Your task to perform on an android device: turn on the 24-hour format for clock Image 0: 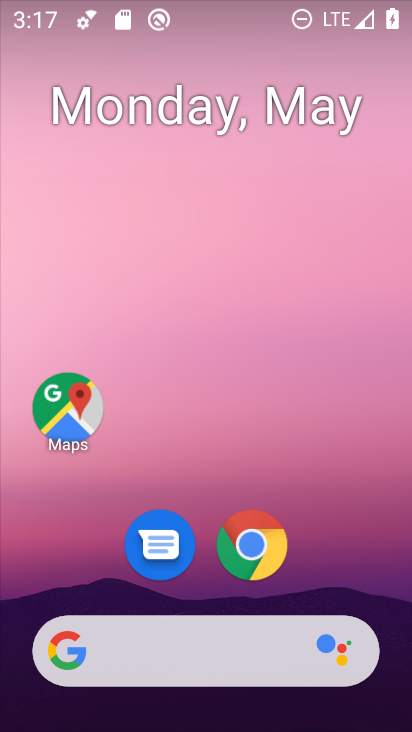
Step 0: drag from (361, 584) to (330, 174)
Your task to perform on an android device: turn on the 24-hour format for clock Image 1: 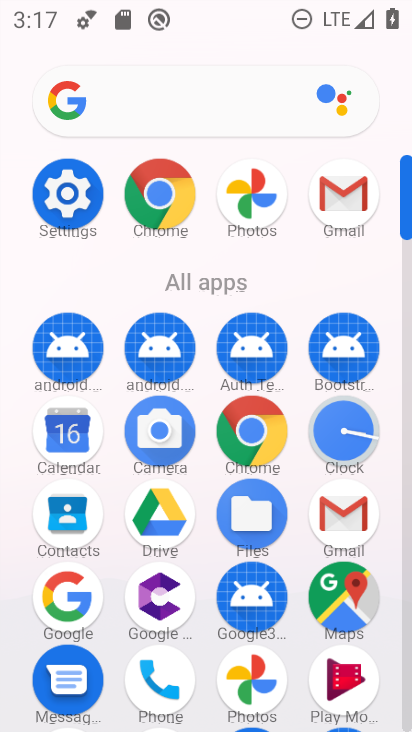
Step 1: click (333, 434)
Your task to perform on an android device: turn on the 24-hour format for clock Image 2: 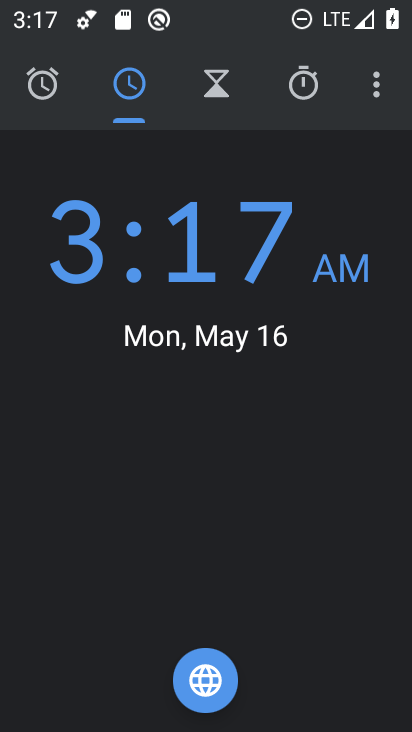
Step 2: click (371, 95)
Your task to perform on an android device: turn on the 24-hour format for clock Image 3: 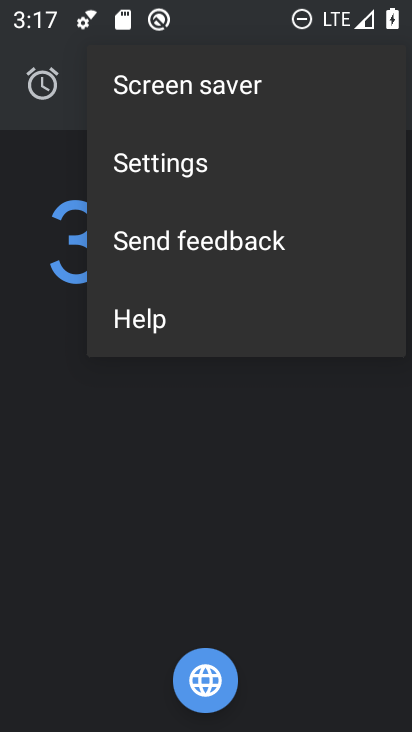
Step 3: click (206, 171)
Your task to perform on an android device: turn on the 24-hour format for clock Image 4: 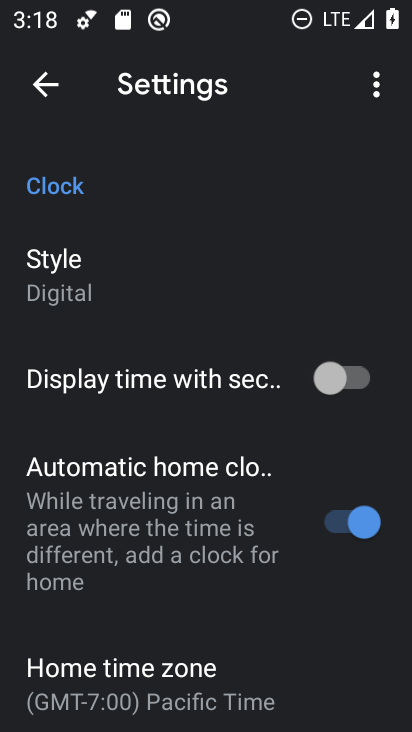
Step 4: drag from (212, 587) to (192, 217)
Your task to perform on an android device: turn on the 24-hour format for clock Image 5: 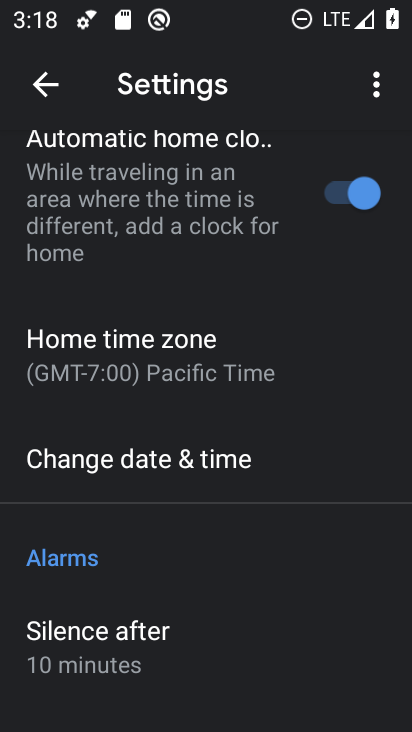
Step 5: click (201, 477)
Your task to perform on an android device: turn on the 24-hour format for clock Image 6: 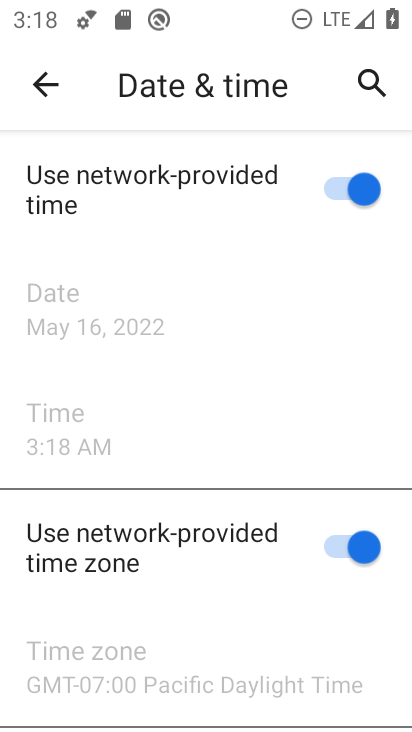
Step 6: drag from (300, 640) to (270, 265)
Your task to perform on an android device: turn on the 24-hour format for clock Image 7: 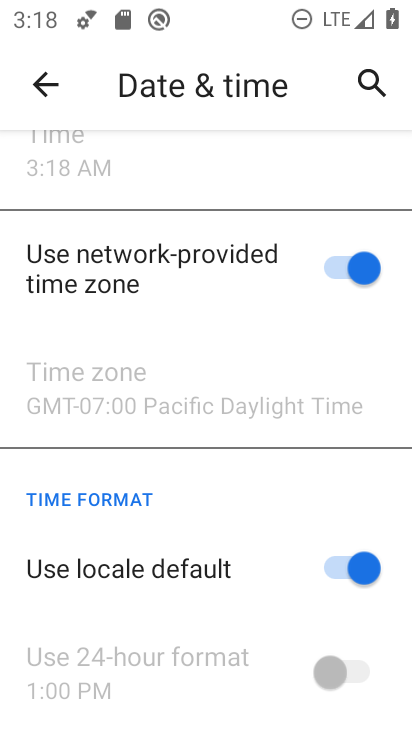
Step 7: click (345, 580)
Your task to perform on an android device: turn on the 24-hour format for clock Image 8: 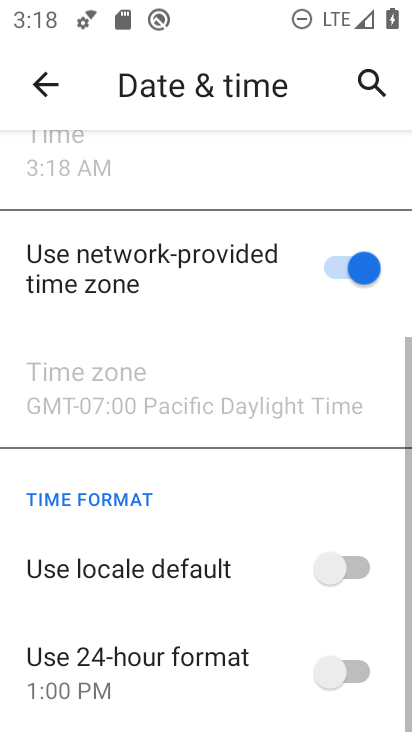
Step 8: click (338, 679)
Your task to perform on an android device: turn on the 24-hour format for clock Image 9: 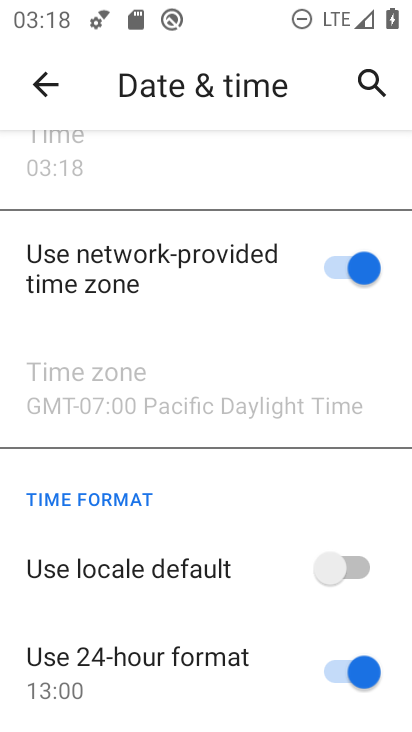
Step 9: task complete